Your task to perform on an android device: turn notification dots on Image 0: 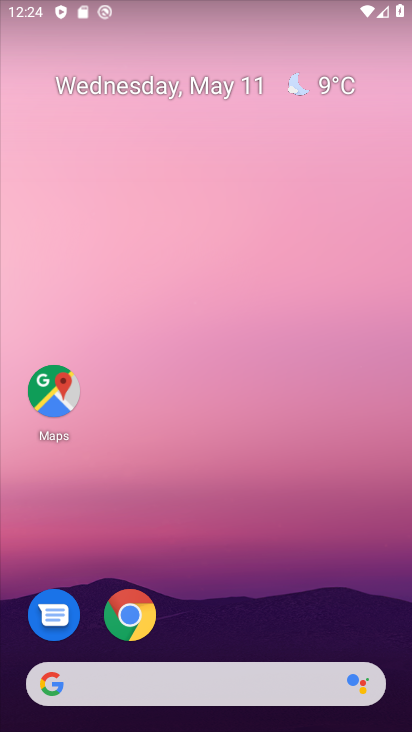
Step 0: drag from (318, 623) to (313, 204)
Your task to perform on an android device: turn notification dots on Image 1: 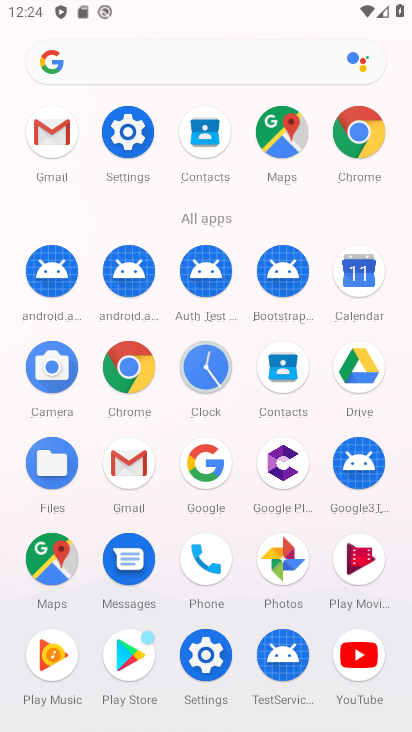
Step 1: click (223, 656)
Your task to perform on an android device: turn notification dots on Image 2: 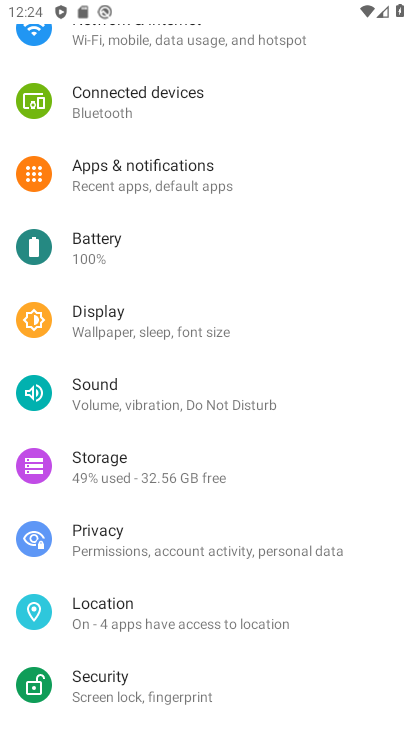
Step 2: task complete